Your task to perform on an android device: open app "Indeed Job Search" (install if not already installed) Image 0: 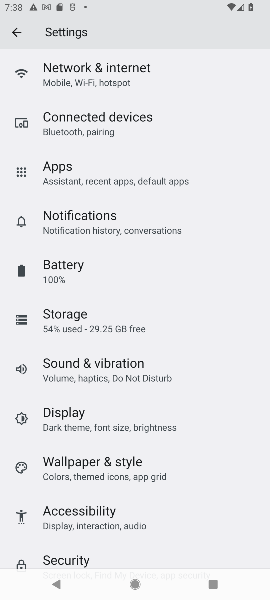
Step 0: press home button
Your task to perform on an android device: open app "Indeed Job Search" (install if not already installed) Image 1: 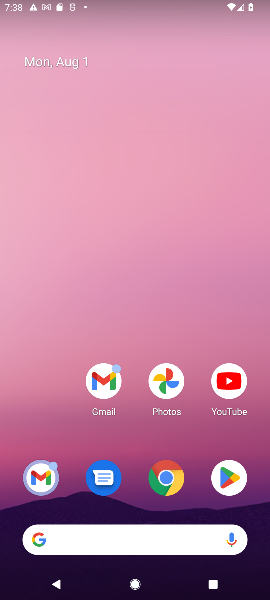
Step 1: click (219, 476)
Your task to perform on an android device: open app "Indeed Job Search" (install if not already installed) Image 2: 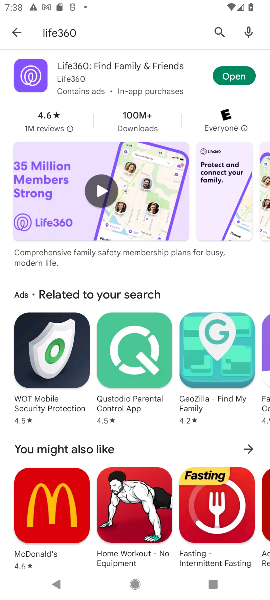
Step 2: click (225, 33)
Your task to perform on an android device: open app "Indeed Job Search" (install if not already installed) Image 3: 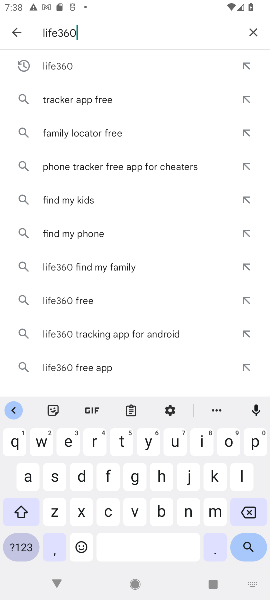
Step 3: click (245, 32)
Your task to perform on an android device: open app "Indeed Job Search" (install if not already installed) Image 4: 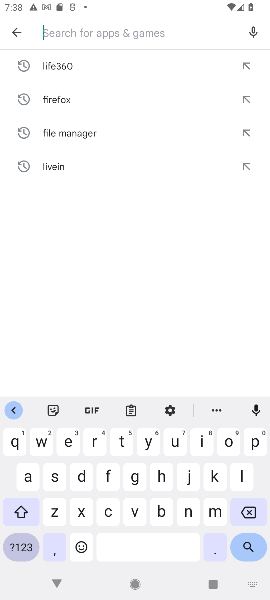
Step 4: click (202, 435)
Your task to perform on an android device: open app "Indeed Job Search" (install if not already installed) Image 5: 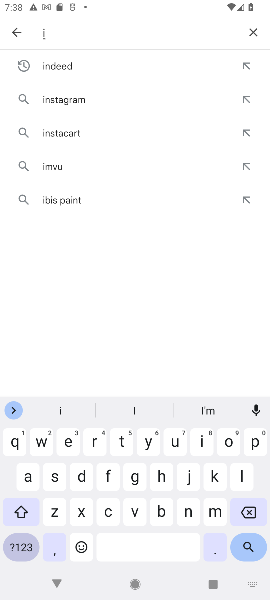
Step 5: click (186, 513)
Your task to perform on an android device: open app "Indeed Job Search" (install if not already installed) Image 6: 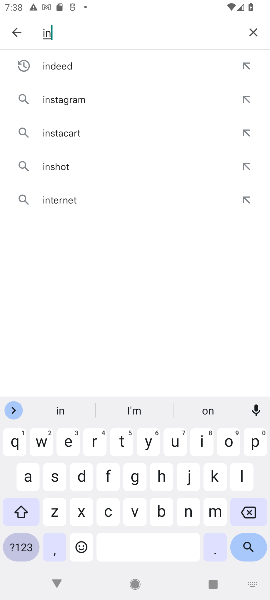
Step 6: click (63, 60)
Your task to perform on an android device: open app "Indeed Job Search" (install if not already installed) Image 7: 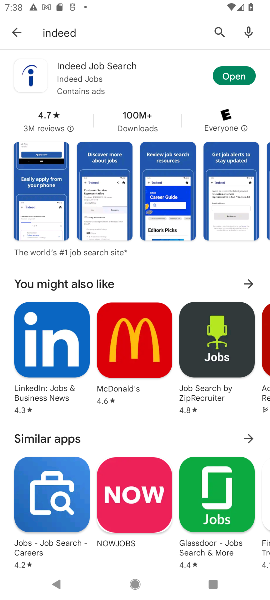
Step 7: click (232, 74)
Your task to perform on an android device: open app "Indeed Job Search" (install if not already installed) Image 8: 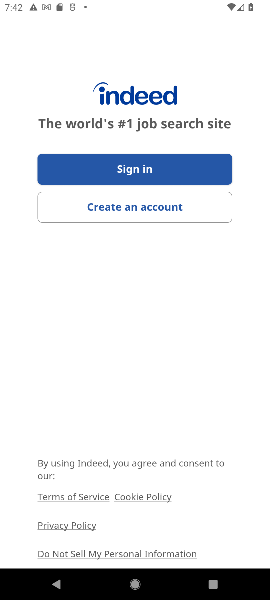
Step 8: task complete